Your task to perform on an android device: toggle location history Image 0: 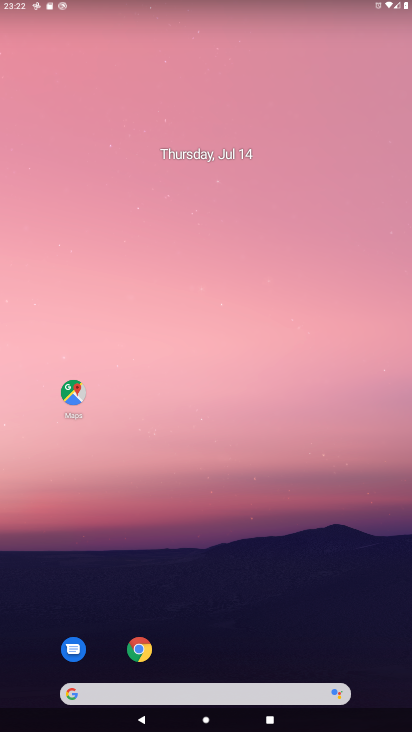
Step 0: drag from (187, 720) to (271, 52)
Your task to perform on an android device: toggle location history Image 1: 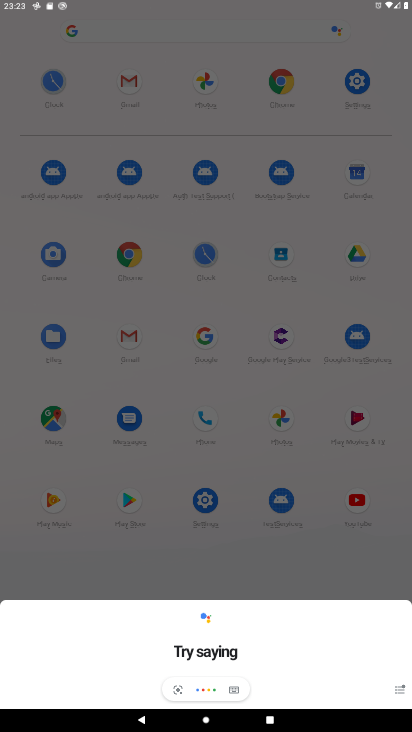
Step 1: click (368, 82)
Your task to perform on an android device: toggle location history Image 2: 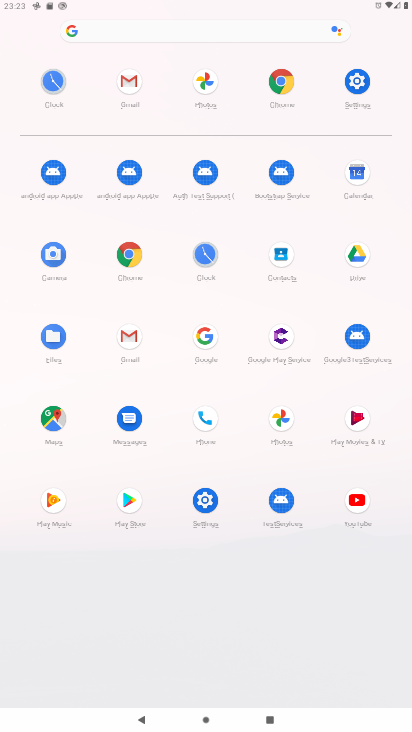
Step 2: click (358, 79)
Your task to perform on an android device: toggle location history Image 3: 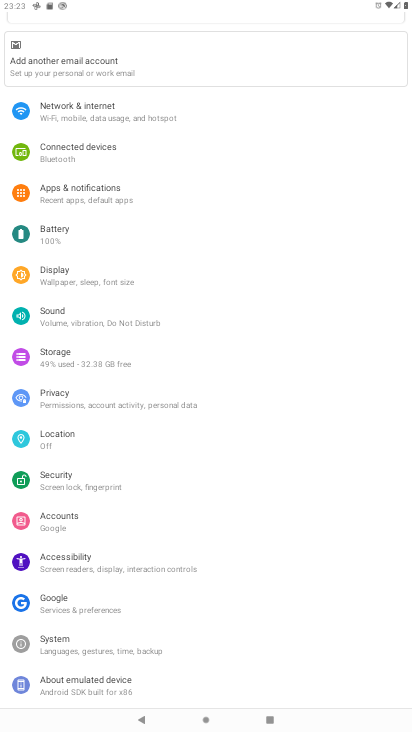
Step 3: click (60, 435)
Your task to perform on an android device: toggle location history Image 4: 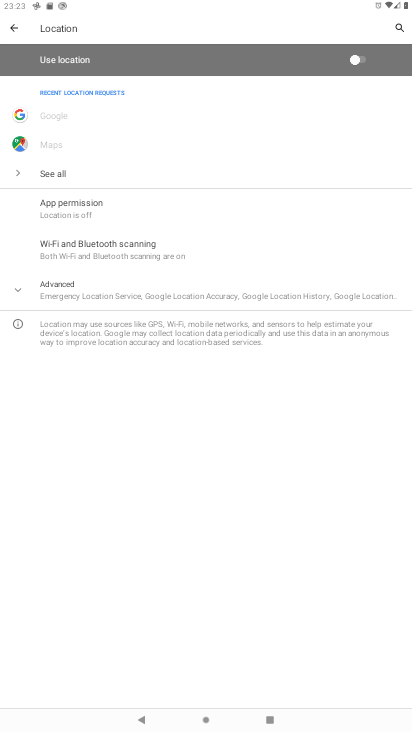
Step 4: click (19, 29)
Your task to perform on an android device: toggle location history Image 5: 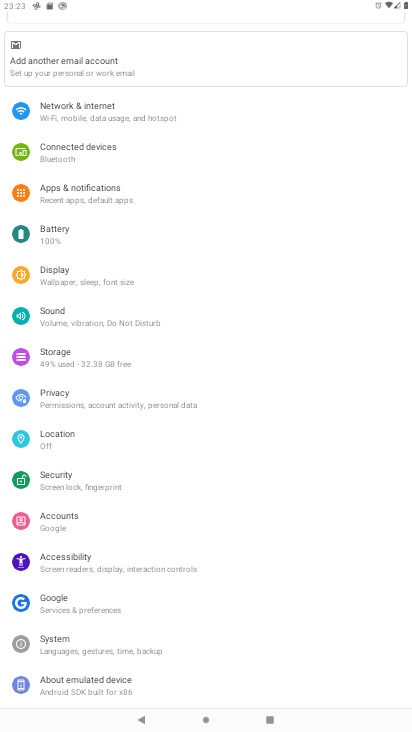
Step 5: press home button
Your task to perform on an android device: toggle location history Image 6: 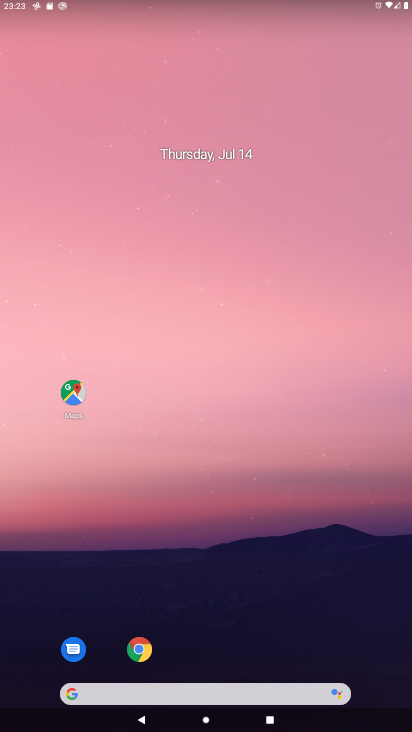
Step 6: click (64, 388)
Your task to perform on an android device: toggle location history Image 7: 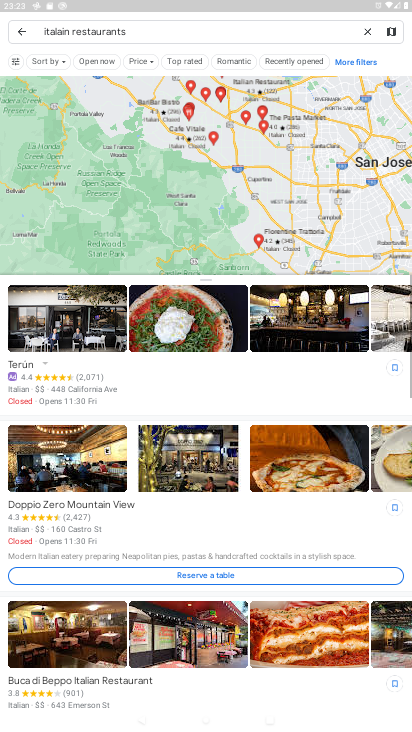
Step 7: click (363, 34)
Your task to perform on an android device: toggle location history Image 8: 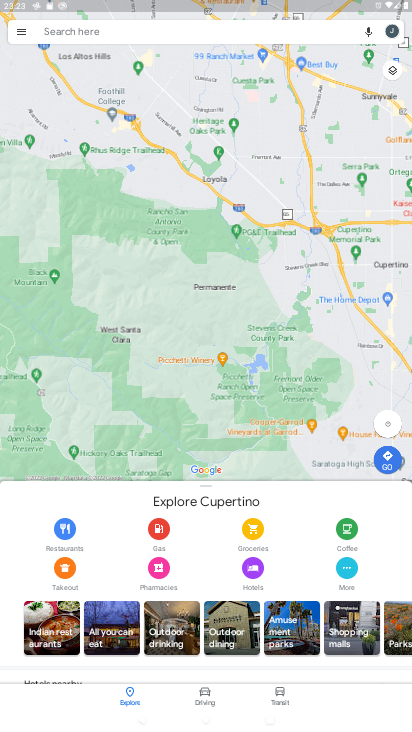
Step 8: click (28, 28)
Your task to perform on an android device: toggle location history Image 9: 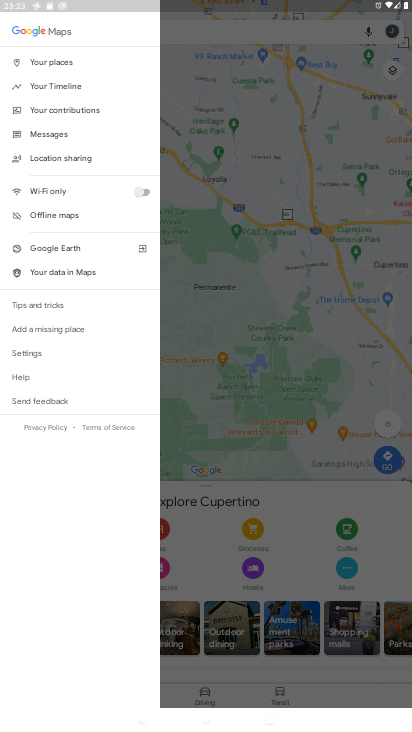
Step 9: click (85, 82)
Your task to perform on an android device: toggle location history Image 10: 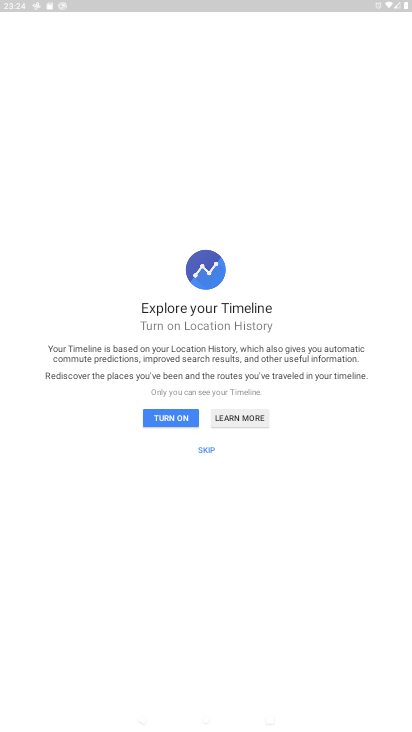
Step 10: click (209, 442)
Your task to perform on an android device: toggle location history Image 11: 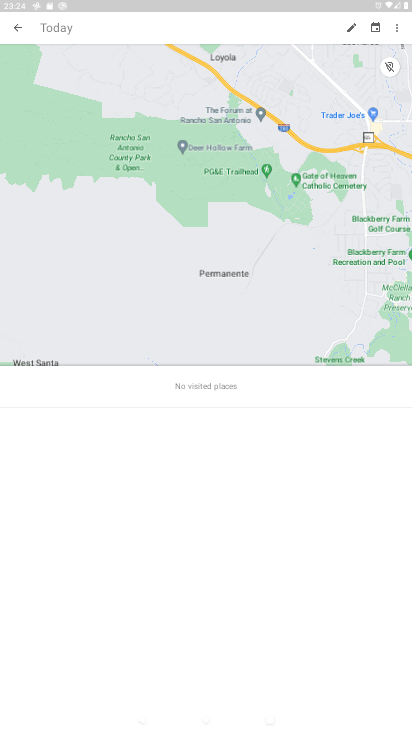
Step 11: click (399, 28)
Your task to perform on an android device: toggle location history Image 12: 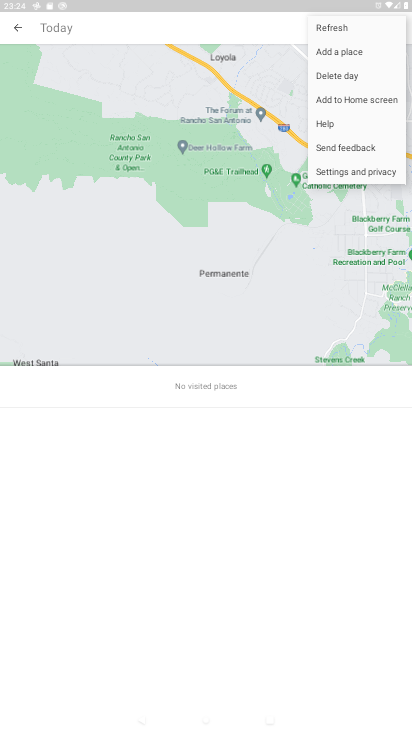
Step 12: click (357, 171)
Your task to perform on an android device: toggle location history Image 13: 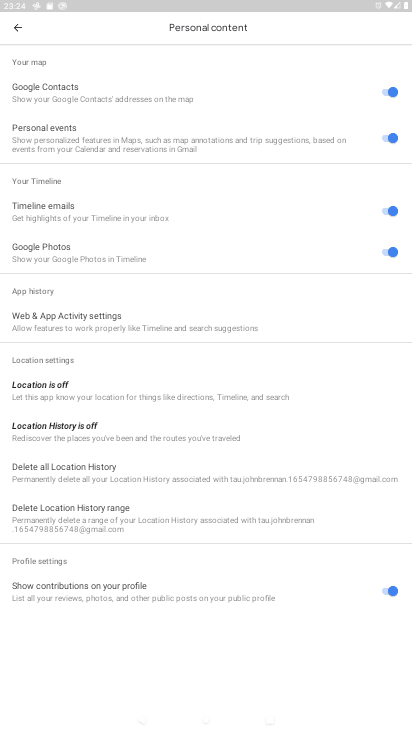
Step 13: click (103, 432)
Your task to perform on an android device: toggle location history Image 14: 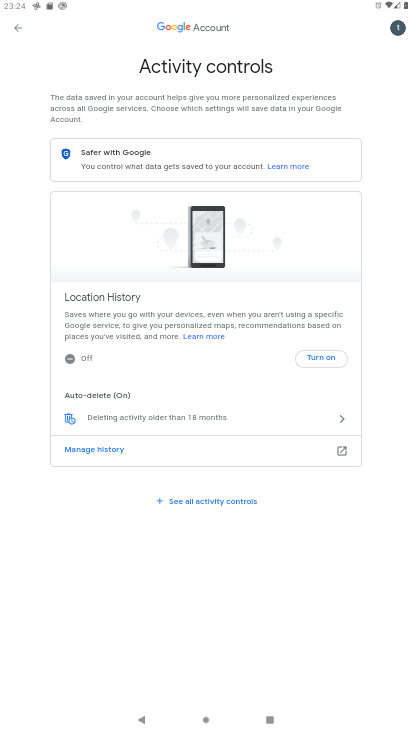
Step 14: click (323, 355)
Your task to perform on an android device: toggle location history Image 15: 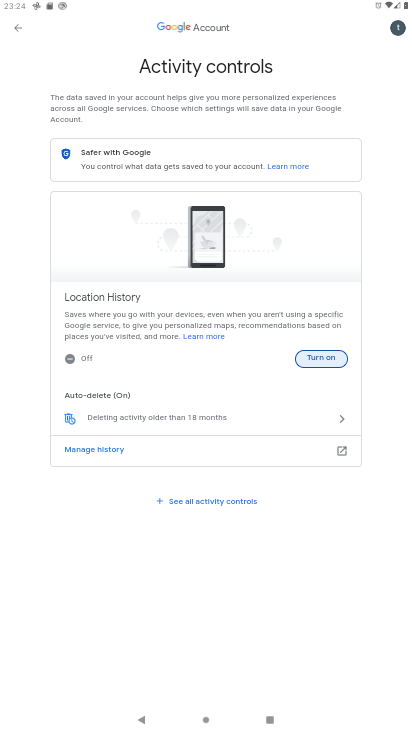
Step 15: click (339, 356)
Your task to perform on an android device: toggle location history Image 16: 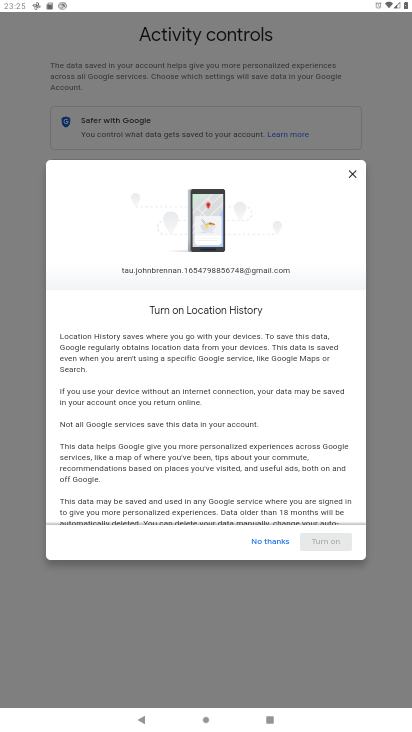
Step 16: click (278, 22)
Your task to perform on an android device: toggle location history Image 17: 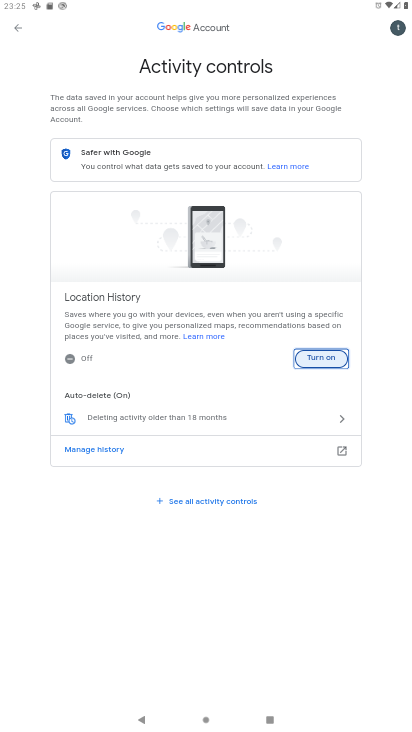
Step 17: task complete